Your task to perform on an android device: Open Google Maps Image 0: 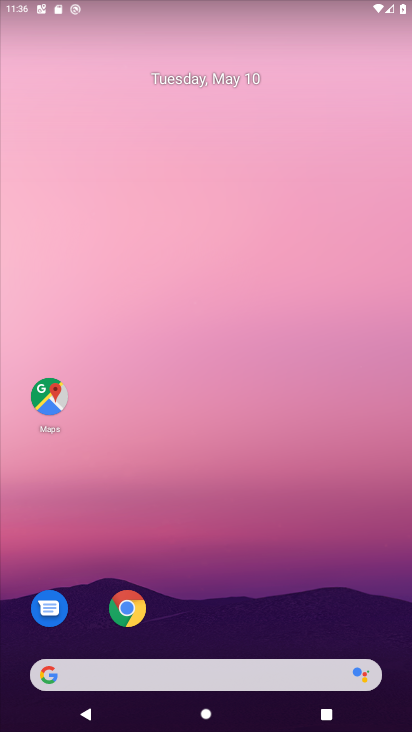
Step 0: click (51, 408)
Your task to perform on an android device: Open Google Maps Image 1: 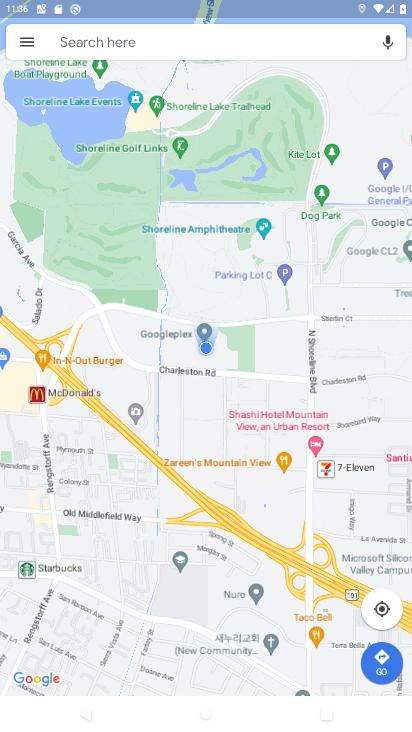
Step 1: task complete